Your task to perform on an android device: Open calendar and show me the third week of next month Image 0: 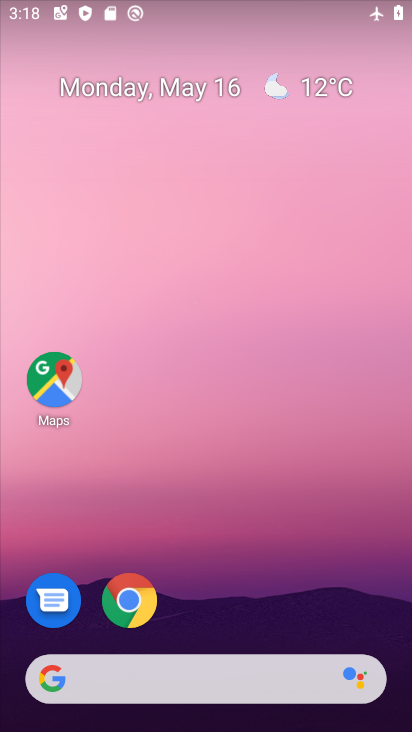
Step 0: drag from (229, 668) to (175, 95)
Your task to perform on an android device: Open calendar and show me the third week of next month Image 1: 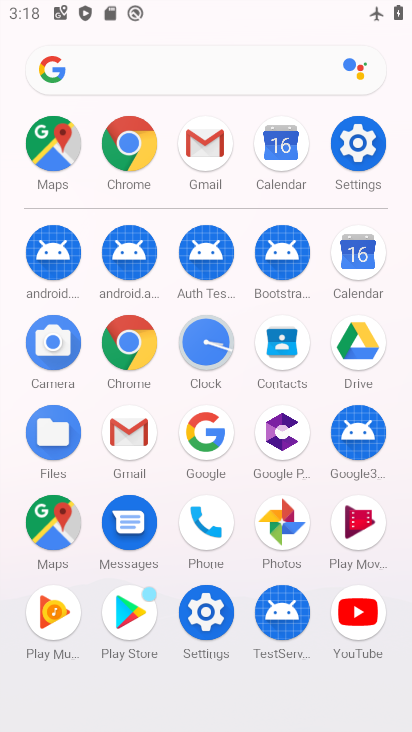
Step 1: click (361, 249)
Your task to perform on an android device: Open calendar and show me the third week of next month Image 2: 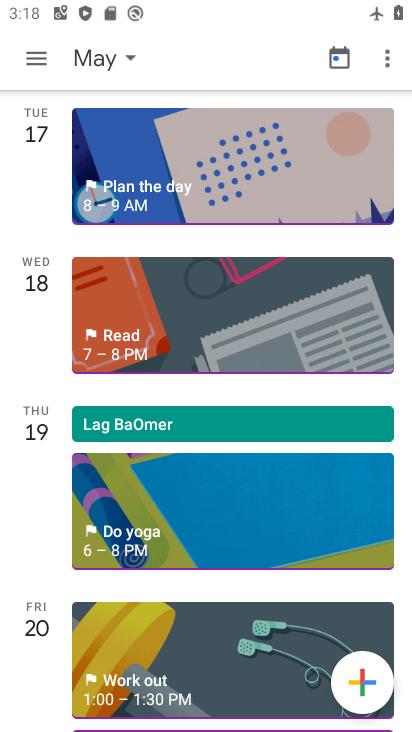
Step 2: click (31, 59)
Your task to perform on an android device: Open calendar and show me the third week of next month Image 3: 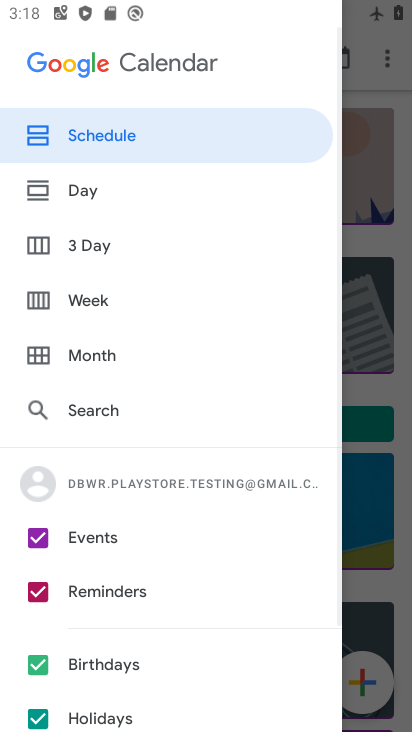
Step 3: click (104, 287)
Your task to perform on an android device: Open calendar and show me the third week of next month Image 4: 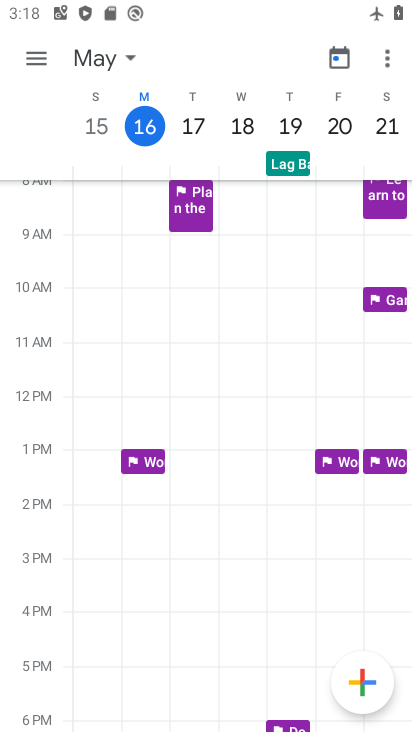
Step 4: task complete